Your task to perform on an android device: empty trash in the gmail app Image 0: 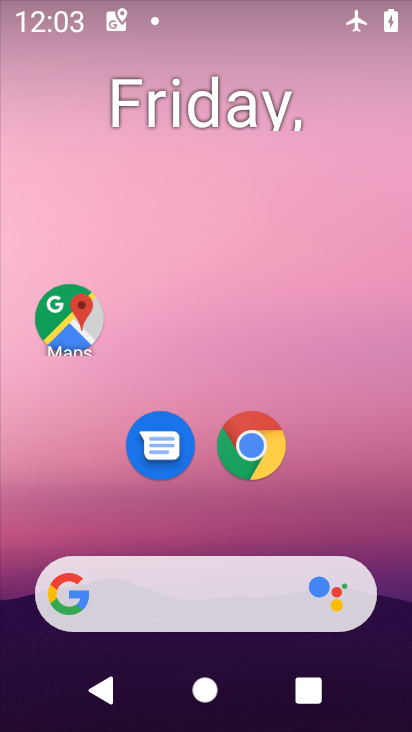
Step 0: drag from (342, 542) to (341, 8)
Your task to perform on an android device: empty trash in the gmail app Image 1: 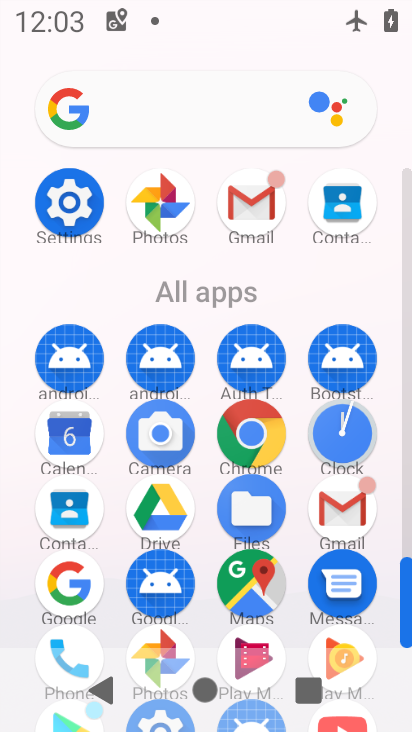
Step 1: click (265, 200)
Your task to perform on an android device: empty trash in the gmail app Image 2: 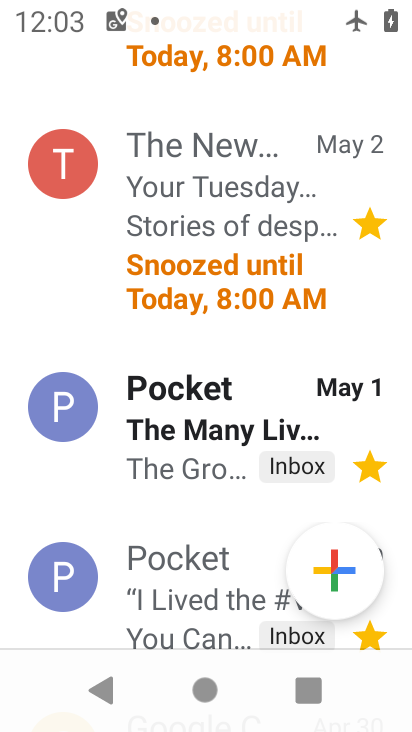
Step 2: drag from (89, 87) to (91, 316)
Your task to perform on an android device: empty trash in the gmail app Image 3: 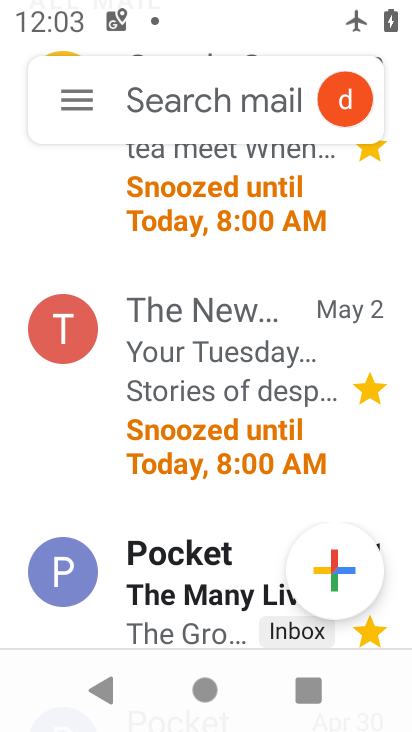
Step 3: click (59, 79)
Your task to perform on an android device: empty trash in the gmail app Image 4: 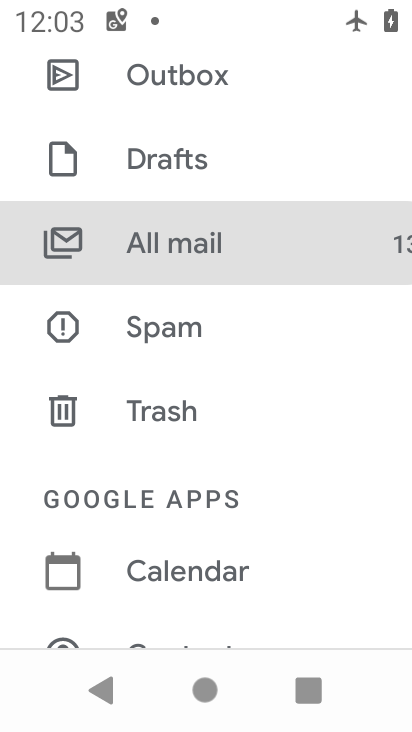
Step 4: click (159, 430)
Your task to perform on an android device: empty trash in the gmail app Image 5: 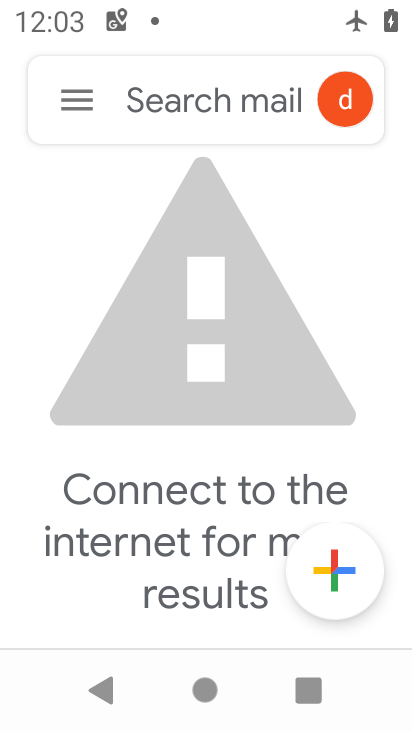
Step 5: task complete